Your task to perform on an android device: search for starred emails in the gmail app Image 0: 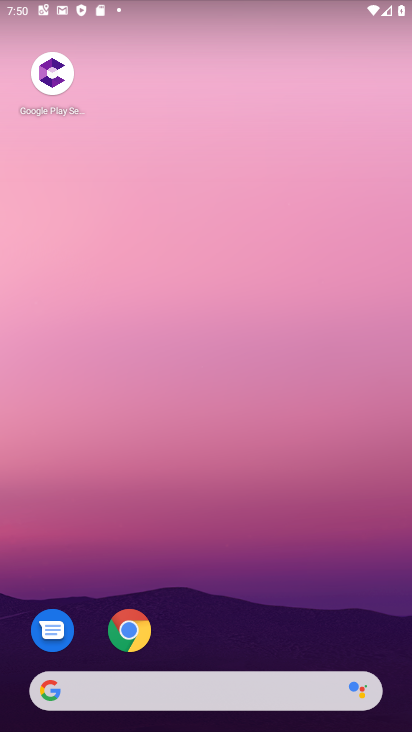
Step 0: drag from (332, 613) to (245, 124)
Your task to perform on an android device: search for starred emails in the gmail app Image 1: 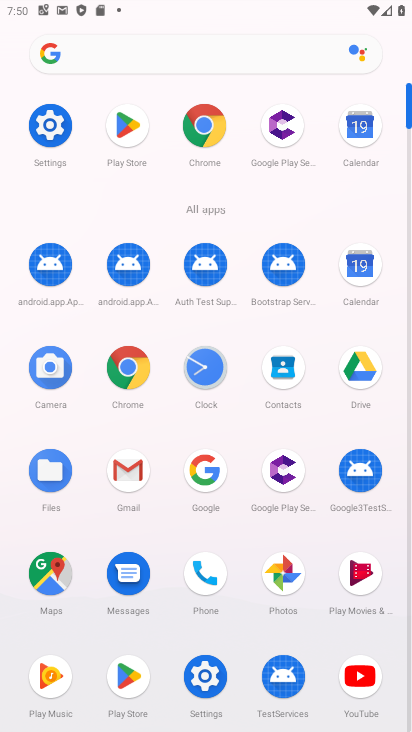
Step 1: click (135, 483)
Your task to perform on an android device: search for starred emails in the gmail app Image 2: 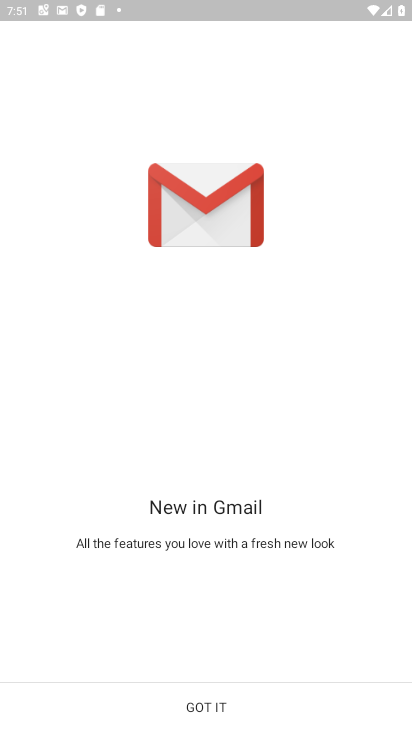
Step 2: click (192, 703)
Your task to perform on an android device: search for starred emails in the gmail app Image 3: 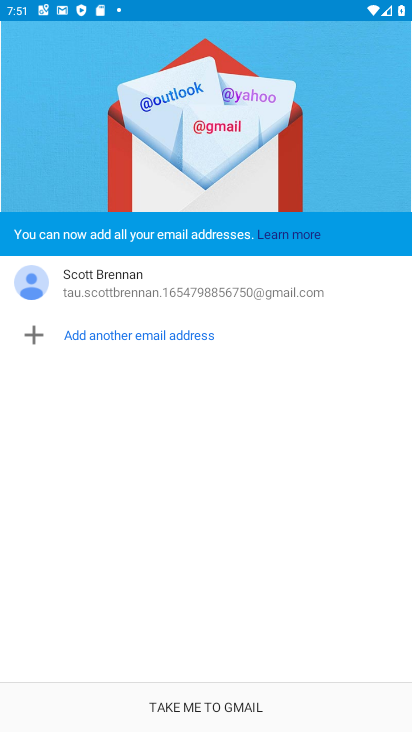
Step 3: click (192, 703)
Your task to perform on an android device: search for starred emails in the gmail app Image 4: 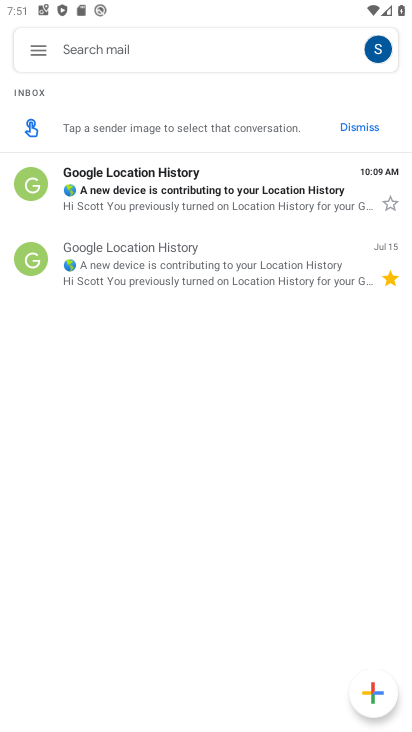
Step 4: click (40, 50)
Your task to perform on an android device: search for starred emails in the gmail app Image 5: 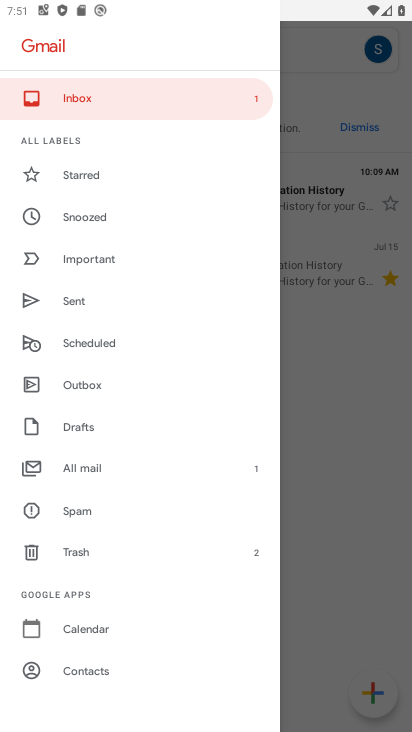
Step 5: click (83, 177)
Your task to perform on an android device: search for starred emails in the gmail app Image 6: 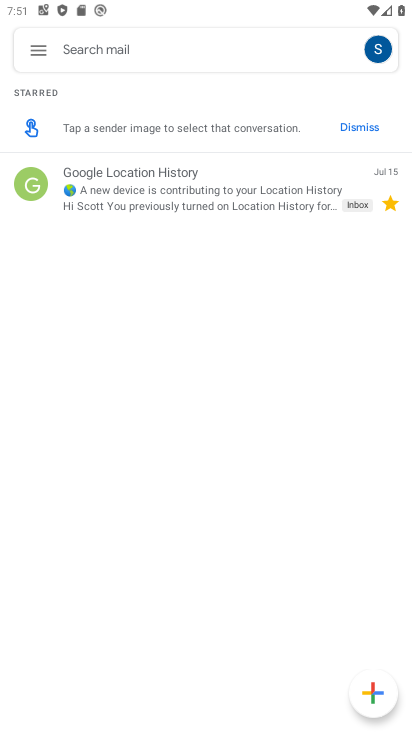
Step 6: task complete